Your task to perform on an android device: Open Android settings Image 0: 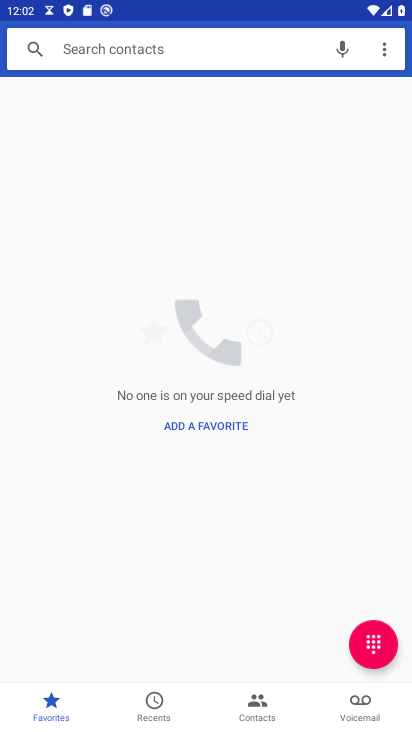
Step 0: press home button
Your task to perform on an android device: Open Android settings Image 1: 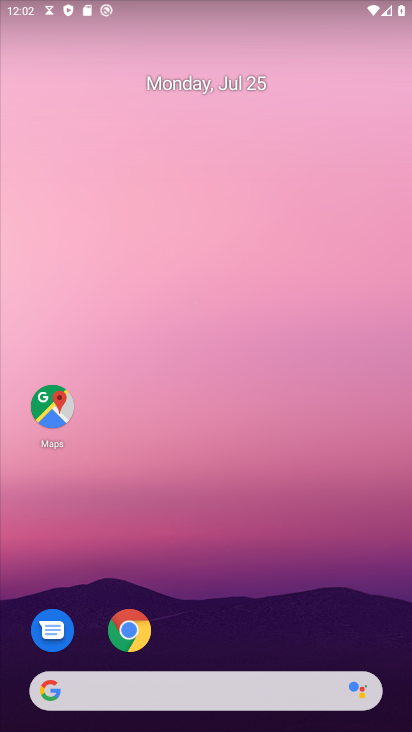
Step 1: drag from (253, 621) to (280, 58)
Your task to perform on an android device: Open Android settings Image 2: 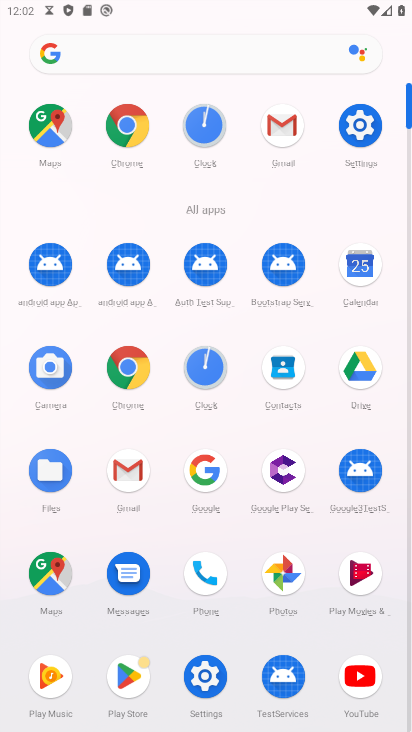
Step 2: click (370, 108)
Your task to perform on an android device: Open Android settings Image 3: 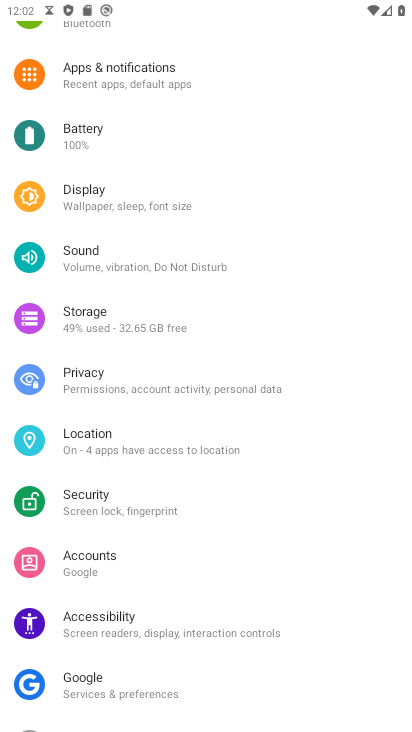
Step 3: task complete